Your task to perform on an android device: Search for pizza restaurants on Maps Image 0: 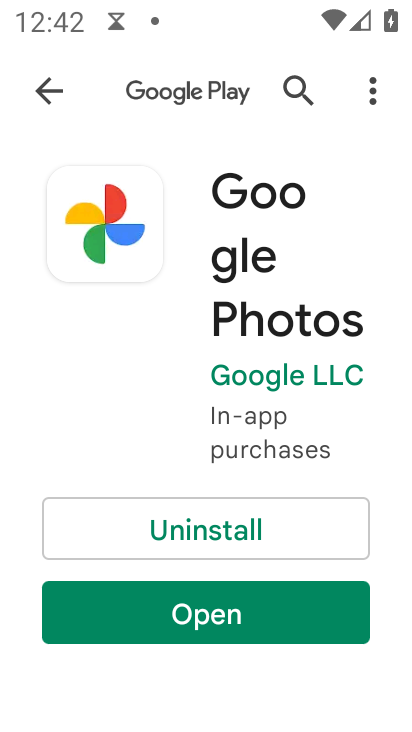
Step 0: press home button
Your task to perform on an android device: Search for pizza restaurants on Maps Image 1: 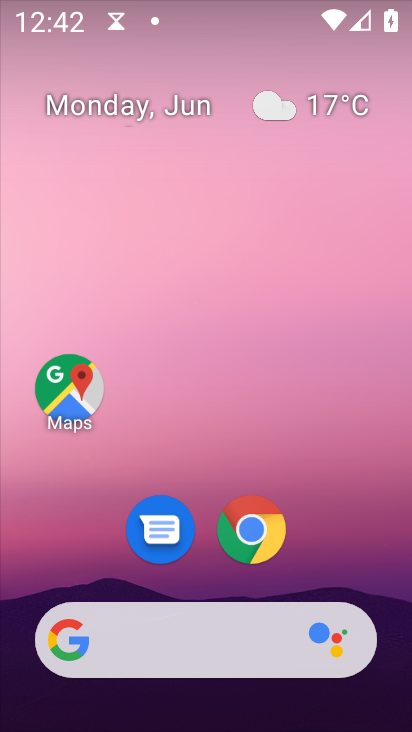
Step 1: drag from (308, 567) to (173, 21)
Your task to perform on an android device: Search for pizza restaurants on Maps Image 2: 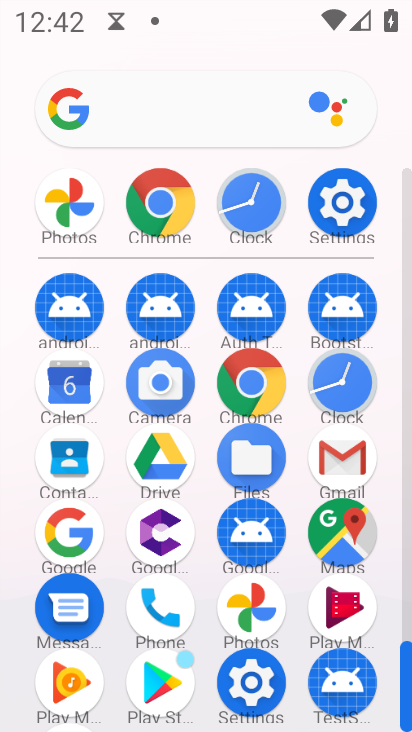
Step 2: click (342, 541)
Your task to perform on an android device: Search for pizza restaurants on Maps Image 3: 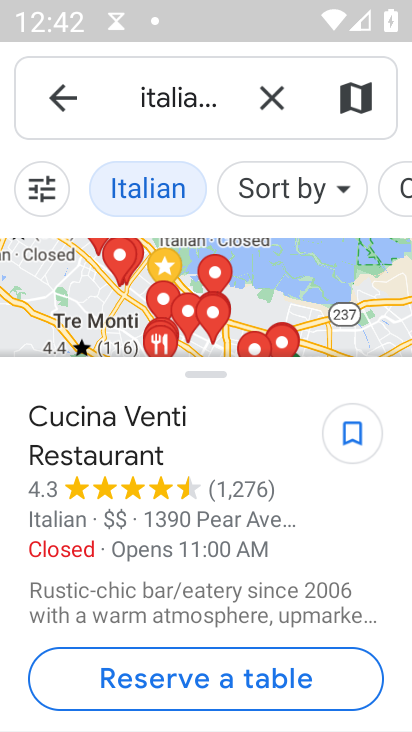
Step 3: click (292, 92)
Your task to perform on an android device: Search for pizza restaurants on Maps Image 4: 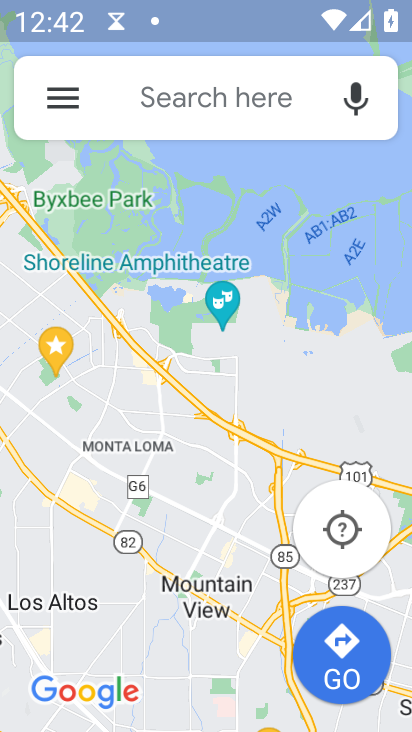
Step 4: click (247, 81)
Your task to perform on an android device: Search for pizza restaurants on Maps Image 5: 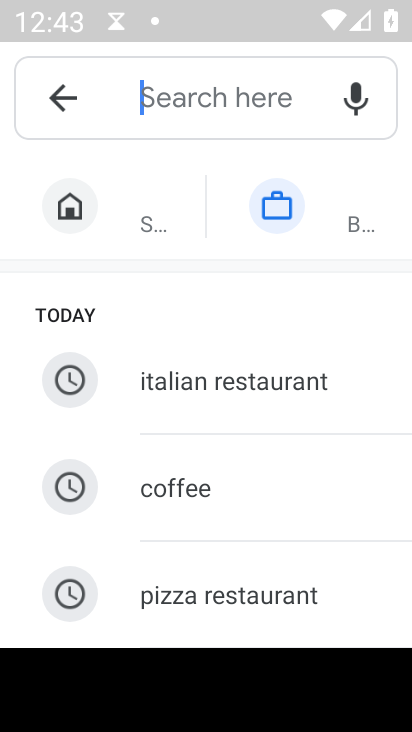
Step 5: drag from (207, 552) to (262, 227)
Your task to perform on an android device: Search for pizza restaurants on Maps Image 6: 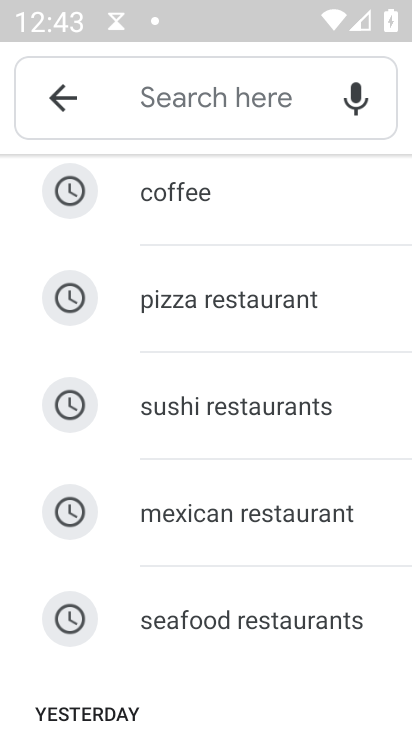
Step 6: click (221, 309)
Your task to perform on an android device: Search for pizza restaurants on Maps Image 7: 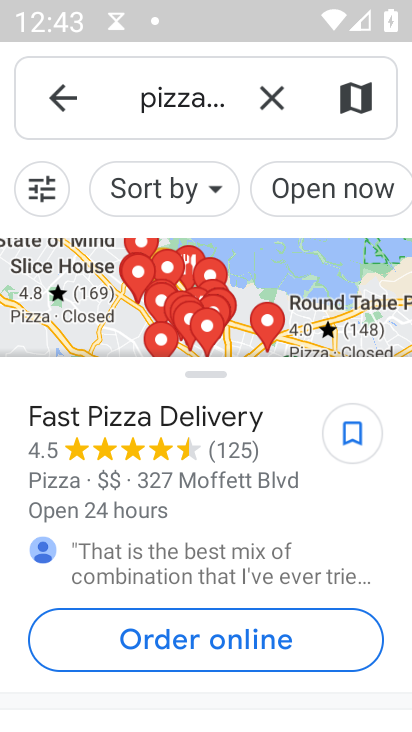
Step 7: task complete